Your task to perform on an android device: Go to Android settings Image 0: 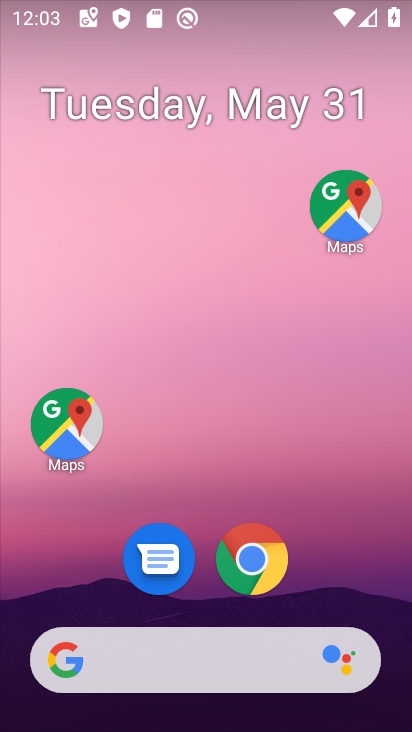
Step 0: drag from (344, 572) to (268, 141)
Your task to perform on an android device: Go to Android settings Image 1: 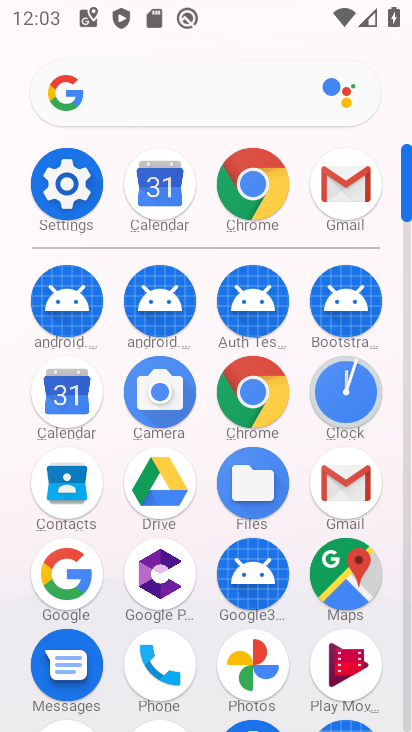
Step 1: click (62, 188)
Your task to perform on an android device: Go to Android settings Image 2: 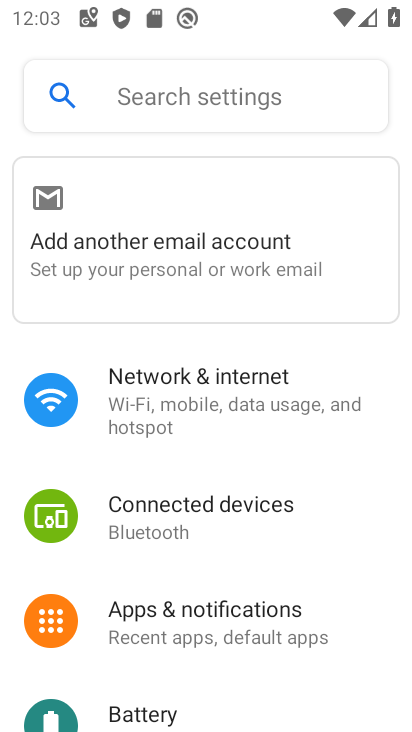
Step 2: task complete